Your task to perform on an android device: Empty the shopping cart on costco. Search for razer naga on costco, select the first entry, and add it to the cart. Image 0: 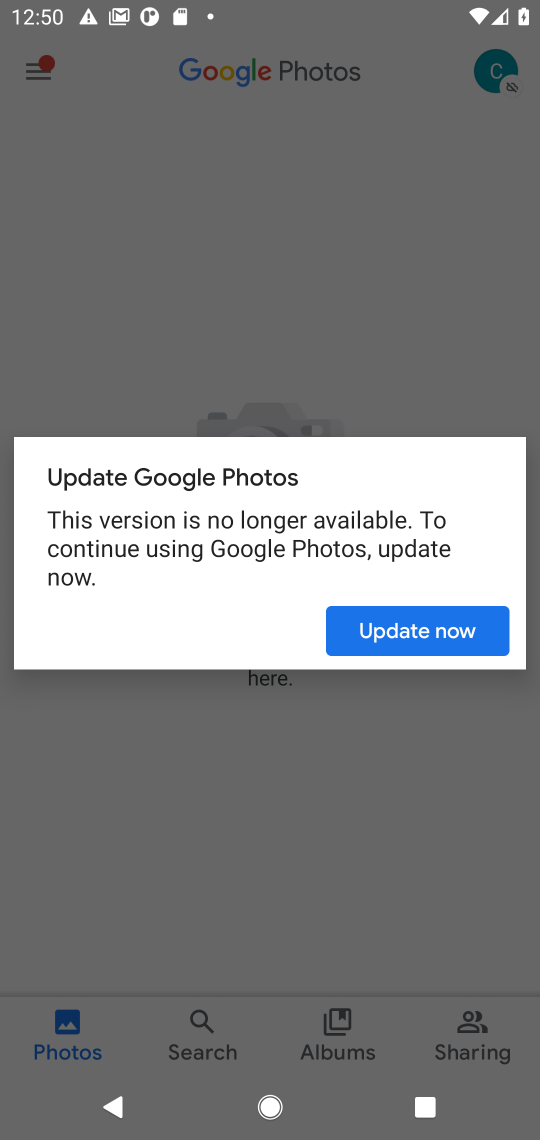
Step 0: press home button
Your task to perform on an android device: Empty the shopping cart on costco. Search for razer naga on costco, select the first entry, and add it to the cart. Image 1: 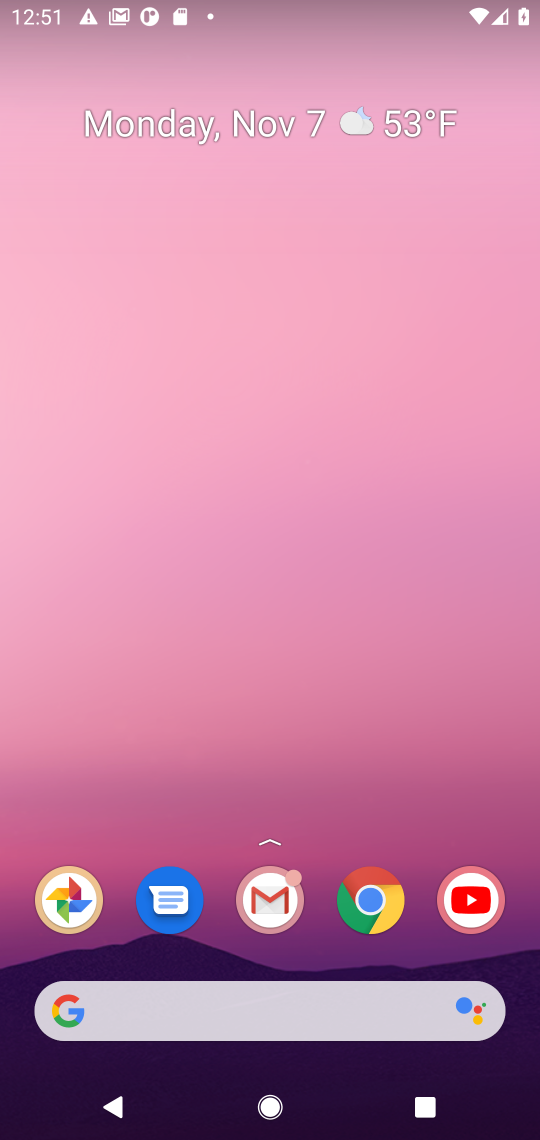
Step 1: click (178, 1012)
Your task to perform on an android device: Empty the shopping cart on costco. Search for razer naga on costco, select the first entry, and add it to the cart. Image 2: 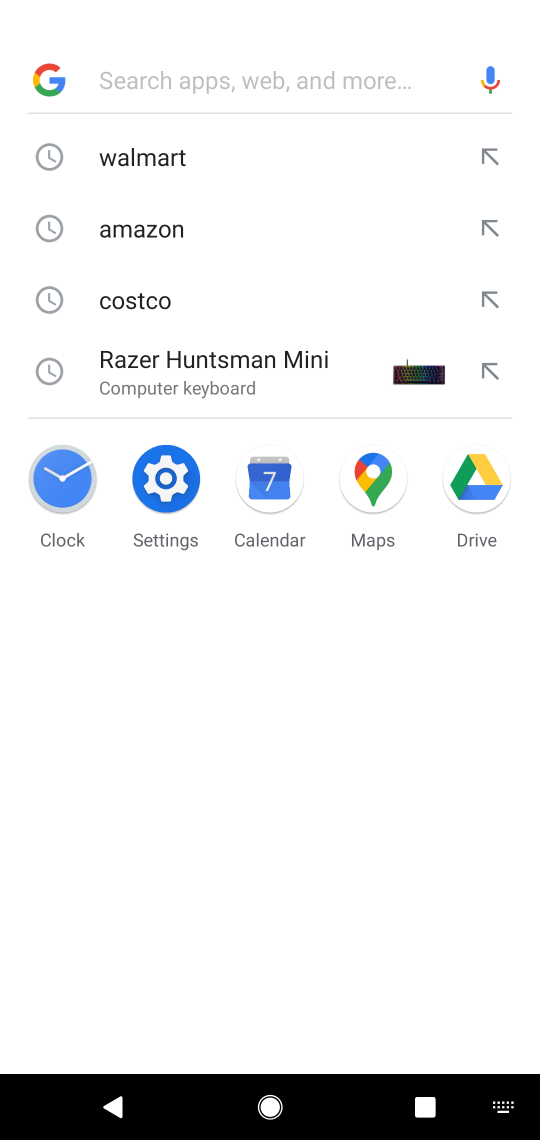
Step 2: click (128, 317)
Your task to perform on an android device: Empty the shopping cart on costco. Search for razer naga on costco, select the first entry, and add it to the cart. Image 3: 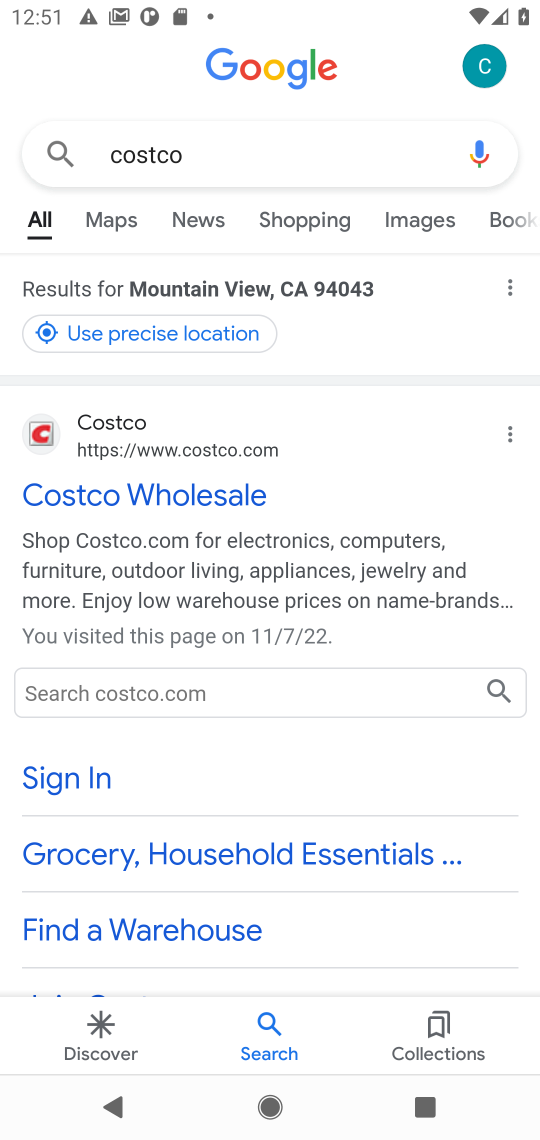
Step 3: click (134, 475)
Your task to perform on an android device: Empty the shopping cart on costco. Search for razer naga on costco, select the first entry, and add it to the cart. Image 4: 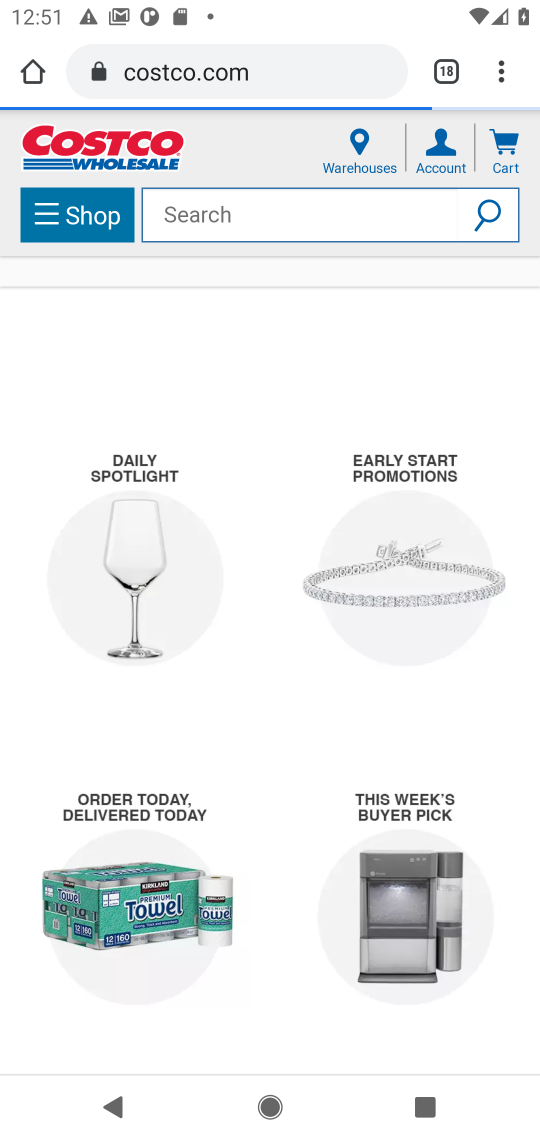
Step 4: task complete